Your task to perform on an android device: check battery use Image 0: 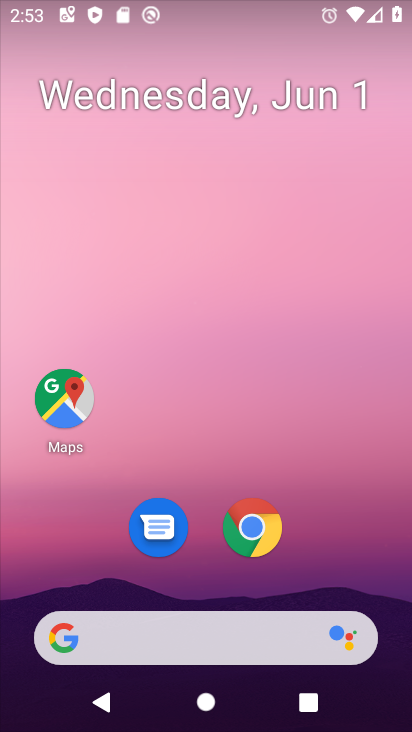
Step 0: drag from (319, 534) to (273, 95)
Your task to perform on an android device: check battery use Image 1: 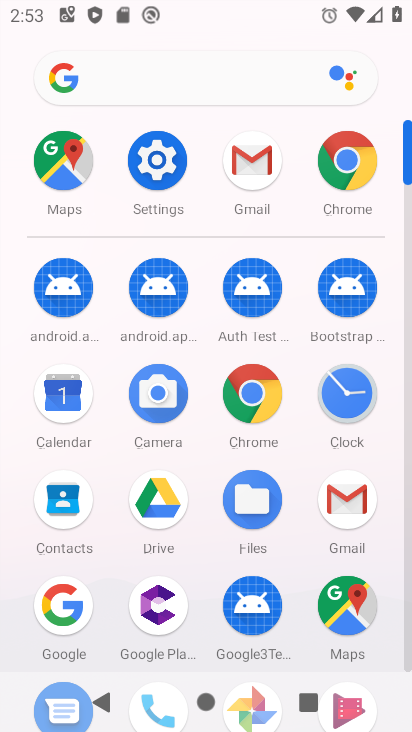
Step 1: click (156, 159)
Your task to perform on an android device: check battery use Image 2: 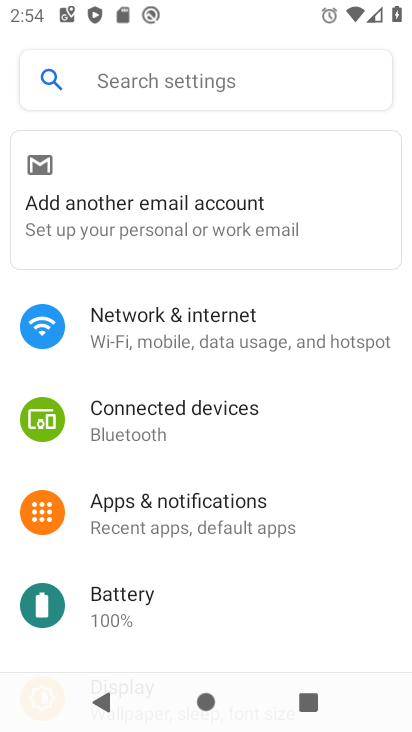
Step 2: drag from (168, 462) to (177, 328)
Your task to perform on an android device: check battery use Image 3: 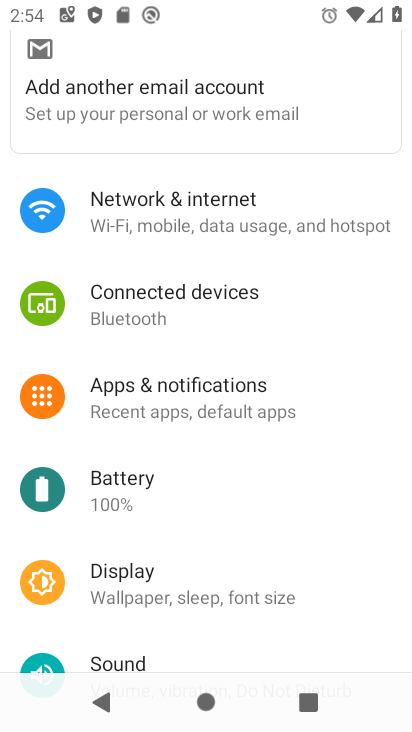
Step 3: drag from (155, 450) to (168, 346)
Your task to perform on an android device: check battery use Image 4: 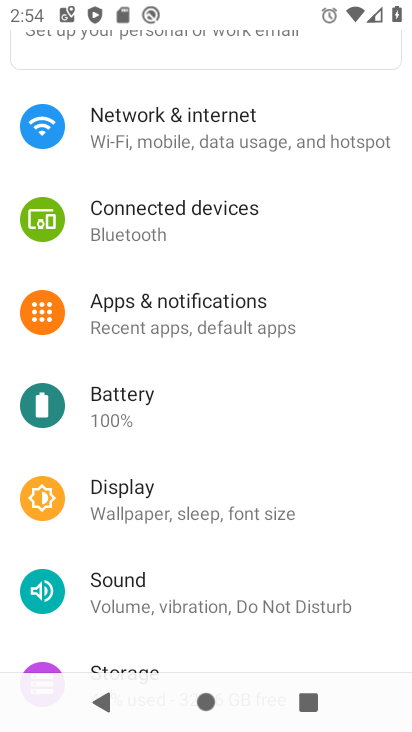
Step 4: drag from (159, 450) to (164, 333)
Your task to perform on an android device: check battery use Image 5: 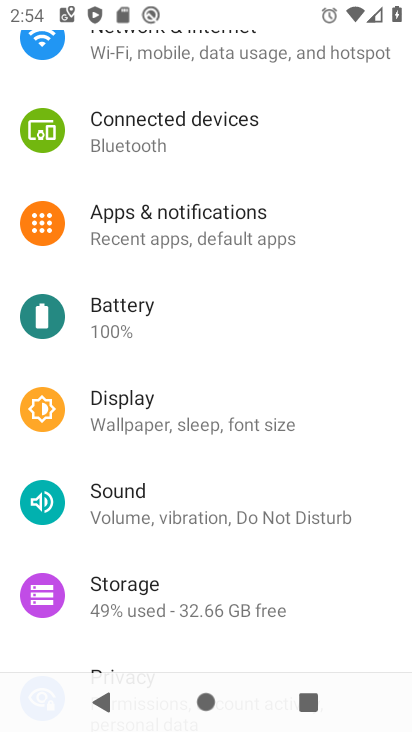
Step 5: click (106, 308)
Your task to perform on an android device: check battery use Image 6: 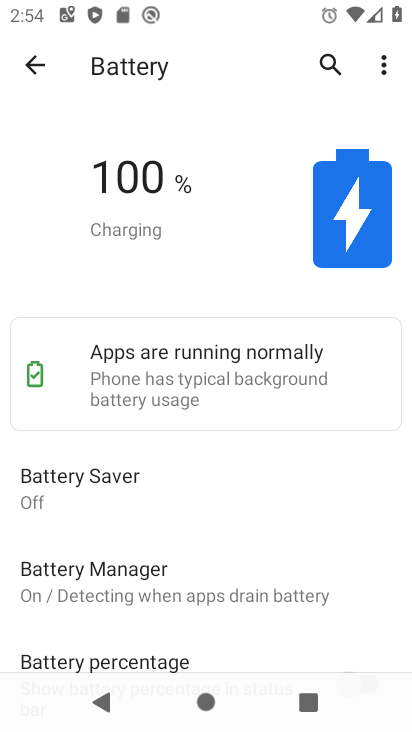
Step 6: click (383, 63)
Your task to perform on an android device: check battery use Image 7: 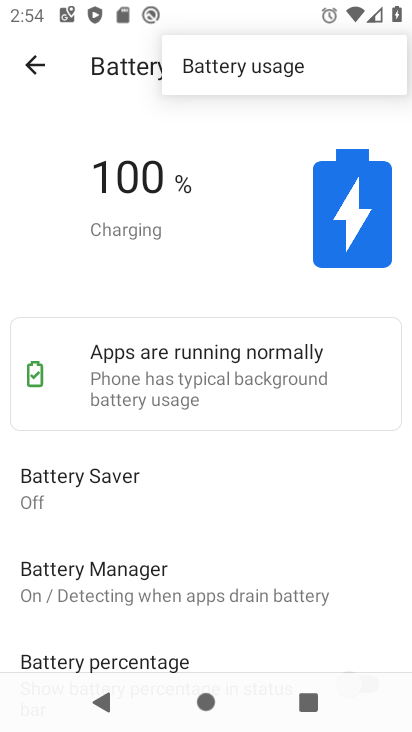
Step 7: click (286, 73)
Your task to perform on an android device: check battery use Image 8: 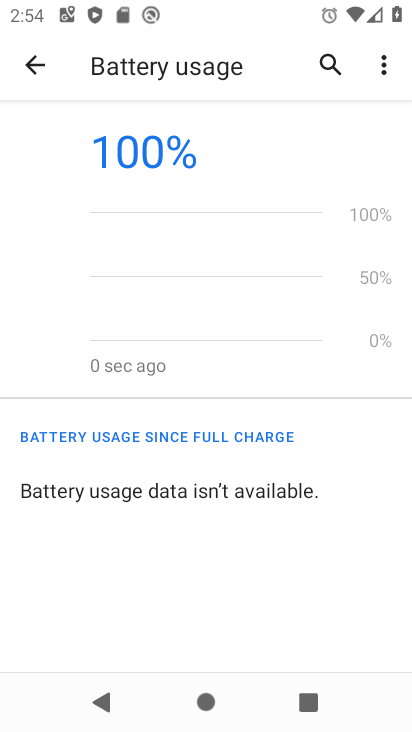
Step 8: task complete